Your task to perform on an android device: Is it going to rain this weekend? Image 0: 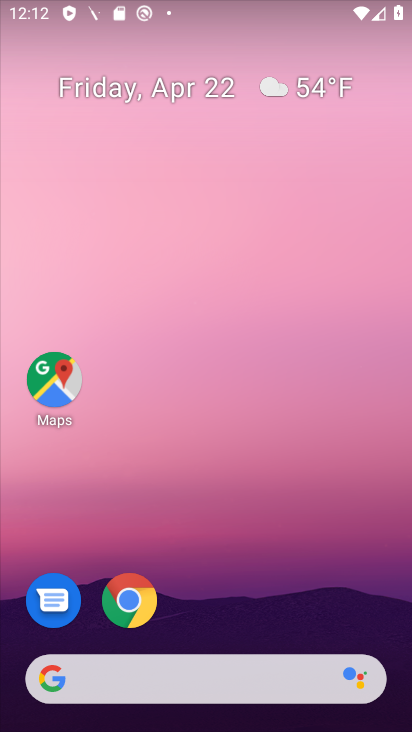
Step 0: drag from (365, 243) to (362, 195)
Your task to perform on an android device: Is it going to rain this weekend? Image 1: 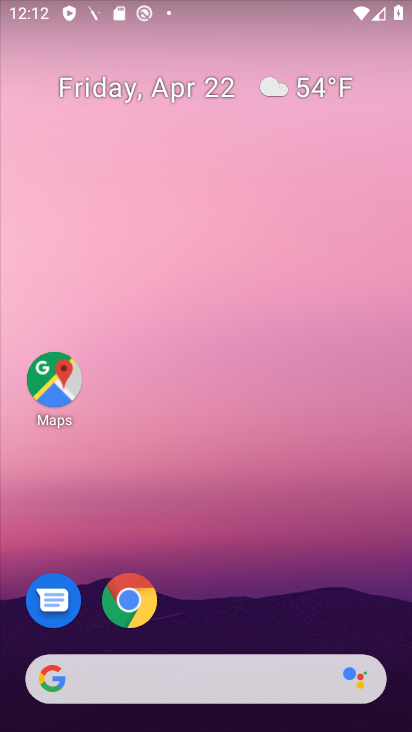
Step 1: drag from (393, 600) to (358, 208)
Your task to perform on an android device: Is it going to rain this weekend? Image 2: 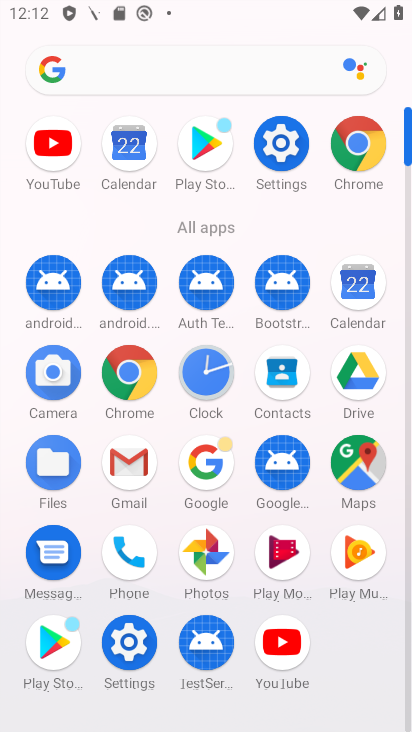
Step 2: click (360, 281)
Your task to perform on an android device: Is it going to rain this weekend? Image 3: 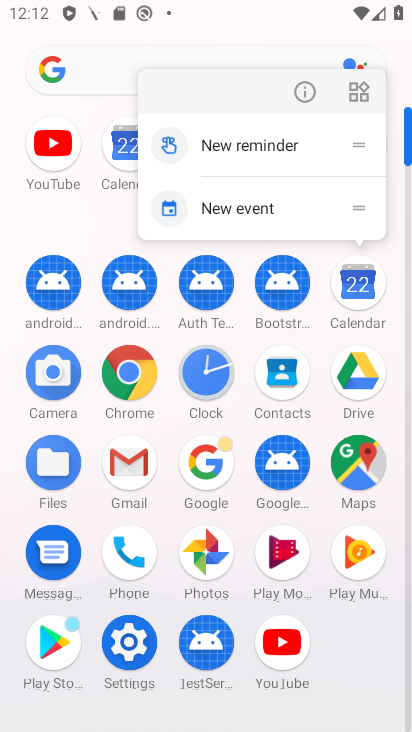
Step 3: press home button
Your task to perform on an android device: Is it going to rain this weekend? Image 4: 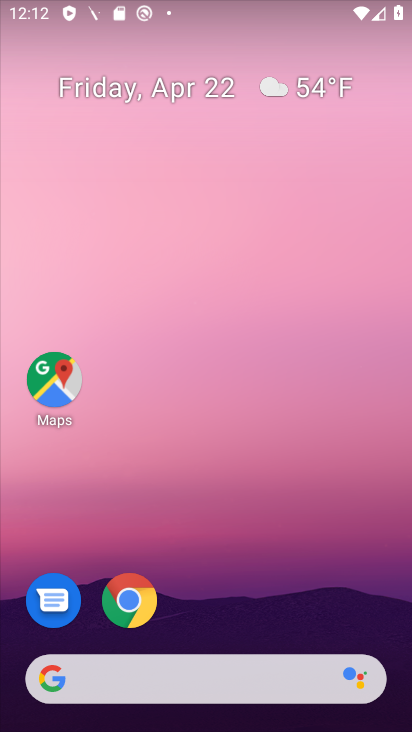
Step 4: click (327, 83)
Your task to perform on an android device: Is it going to rain this weekend? Image 5: 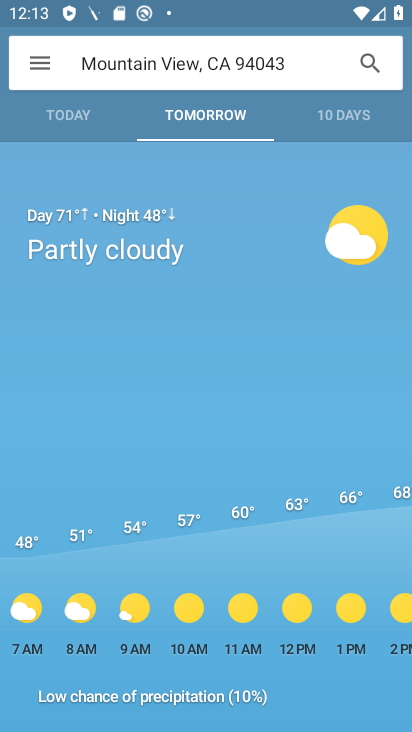
Step 5: click (341, 116)
Your task to perform on an android device: Is it going to rain this weekend? Image 6: 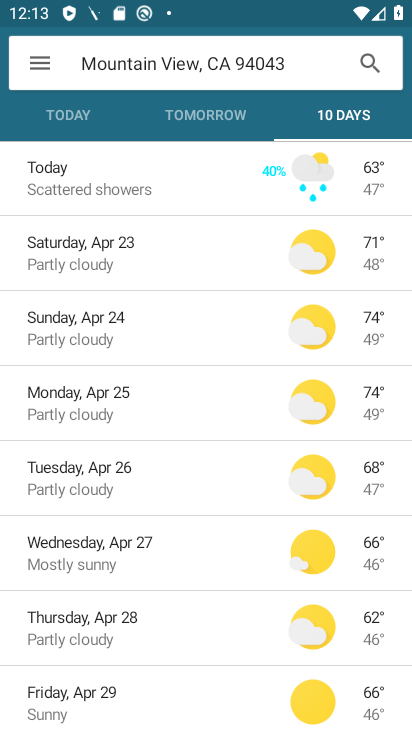
Step 6: task complete